Your task to perform on an android device: Toggle the flashlight Image 0: 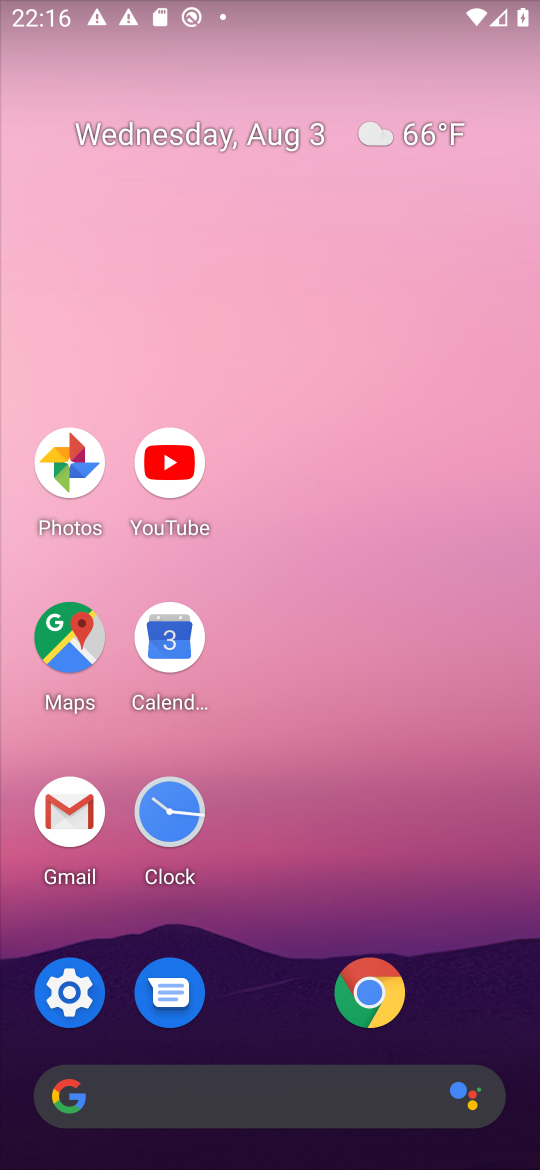
Step 0: click (70, 975)
Your task to perform on an android device: Toggle the flashlight Image 1: 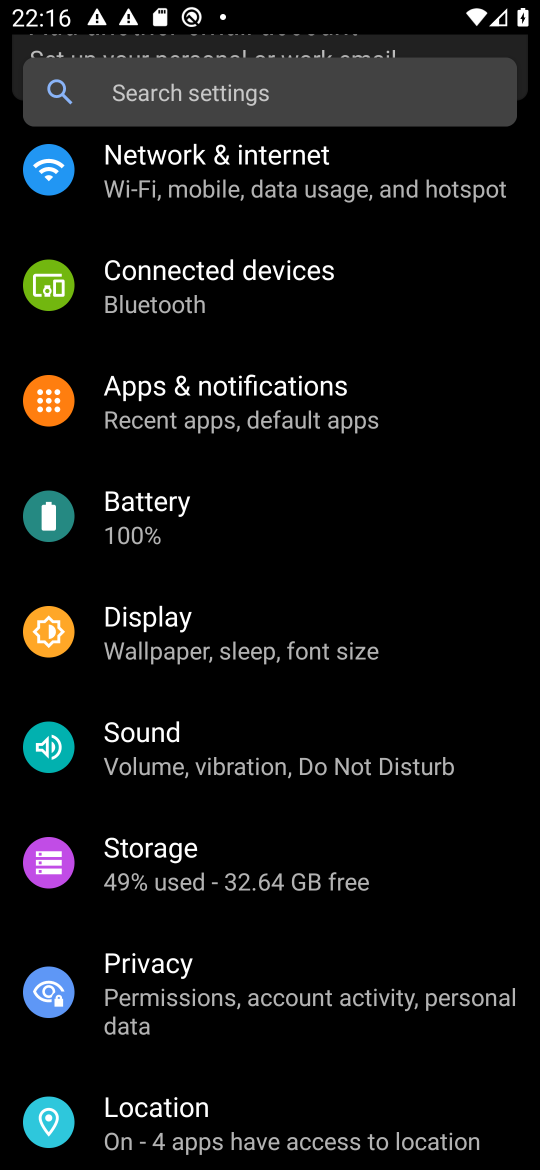
Step 1: click (154, 611)
Your task to perform on an android device: Toggle the flashlight Image 2: 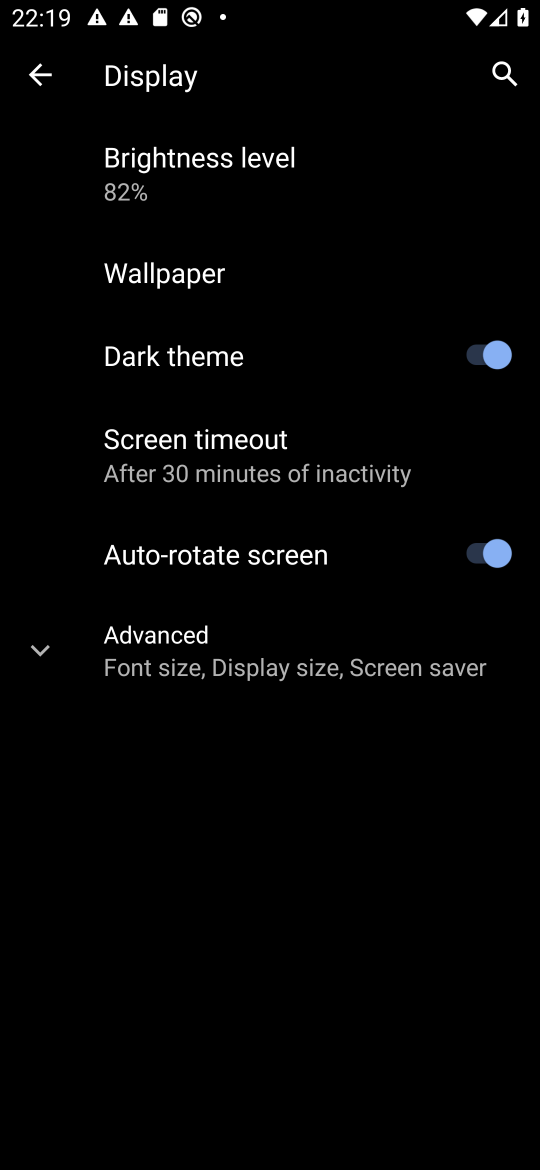
Step 2: click (35, 68)
Your task to perform on an android device: Toggle the flashlight Image 3: 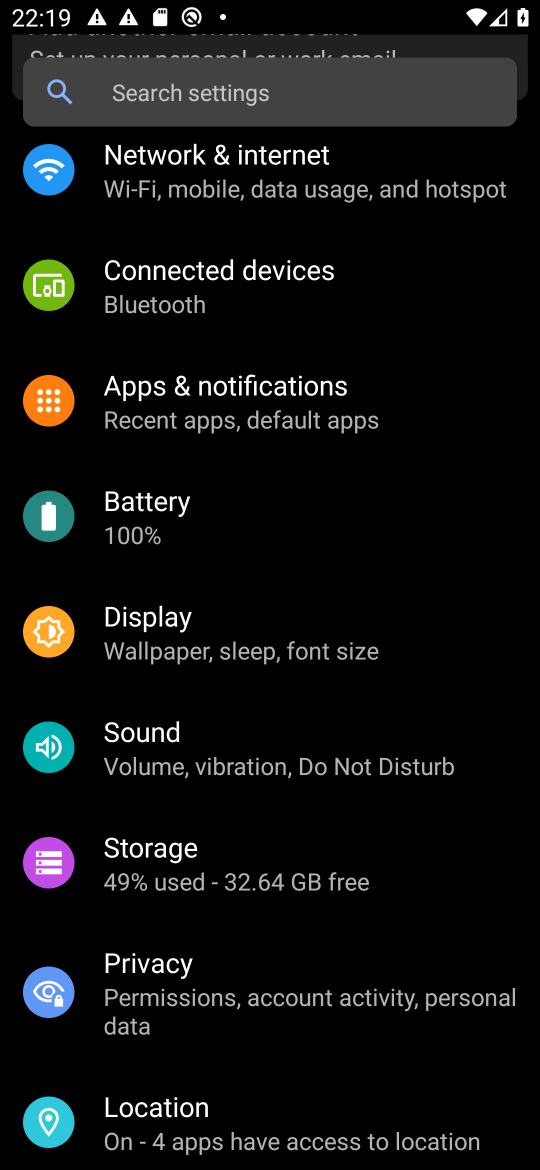
Step 3: task complete